Your task to perform on an android device: install app "TextNow: Call + Text Unlimited" Image 0: 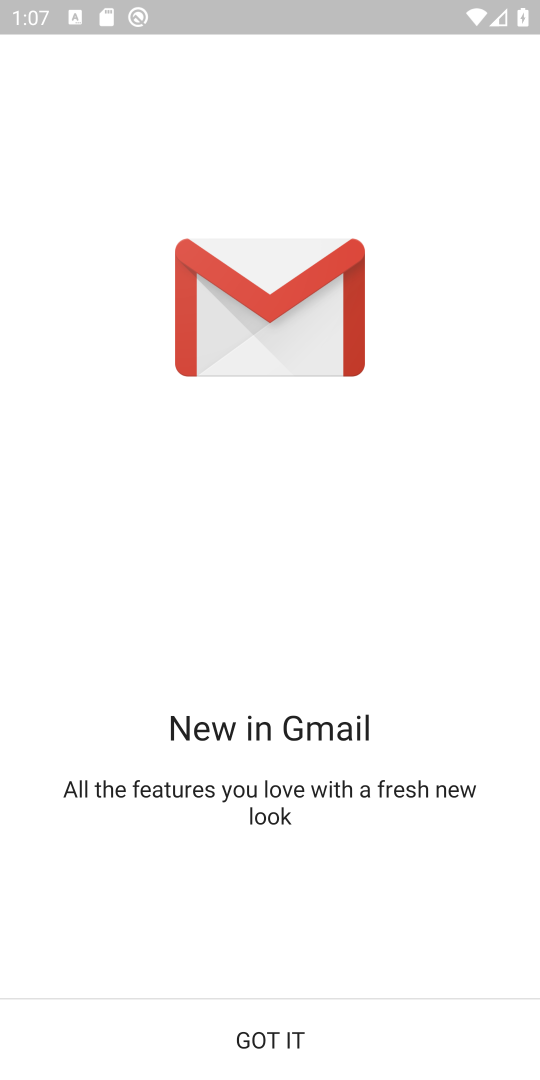
Step 0: press home button
Your task to perform on an android device: install app "TextNow: Call + Text Unlimited" Image 1: 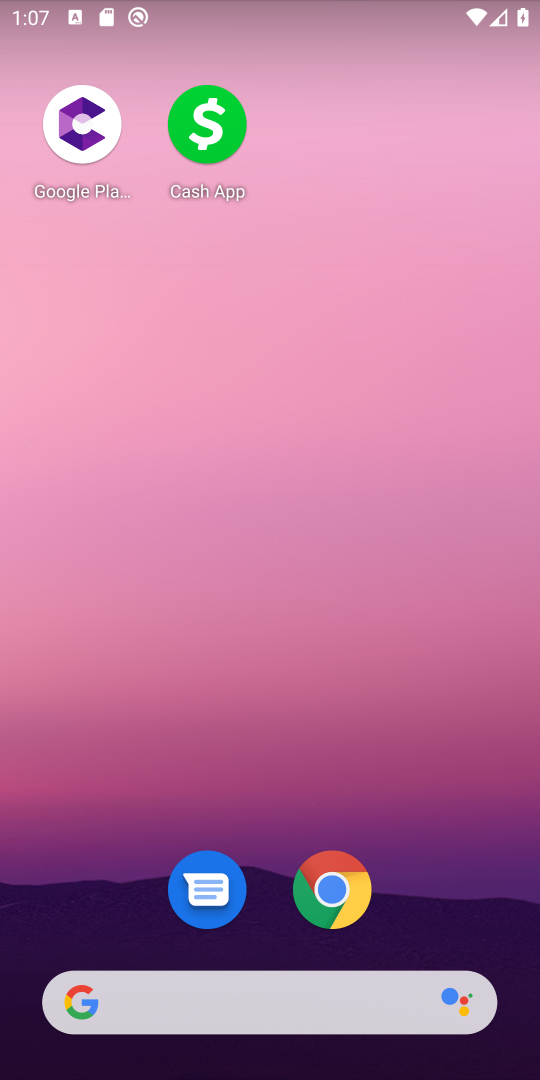
Step 1: drag from (262, 754) to (300, 239)
Your task to perform on an android device: install app "TextNow: Call + Text Unlimited" Image 2: 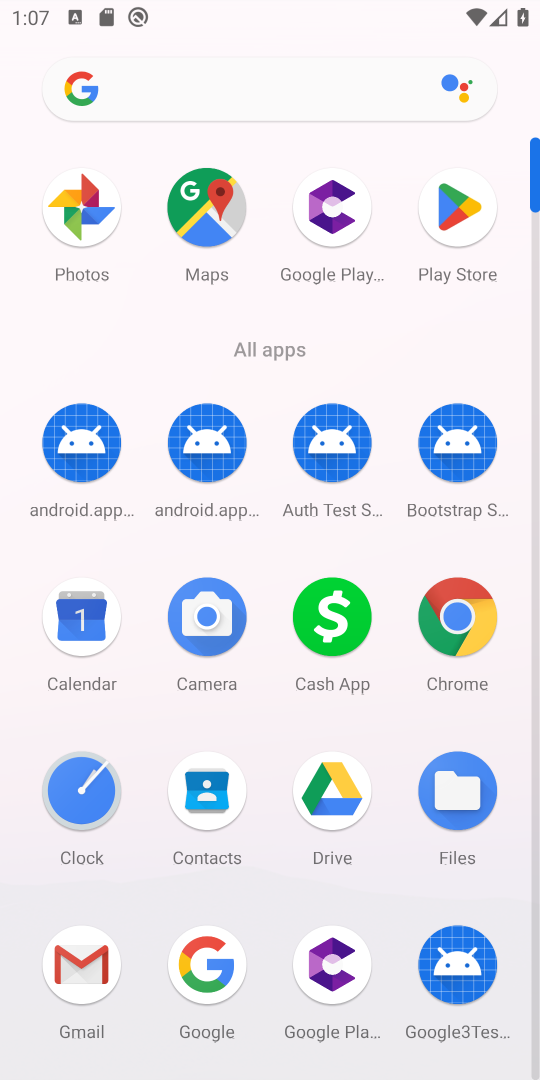
Step 2: click (452, 223)
Your task to perform on an android device: install app "TextNow: Call + Text Unlimited" Image 3: 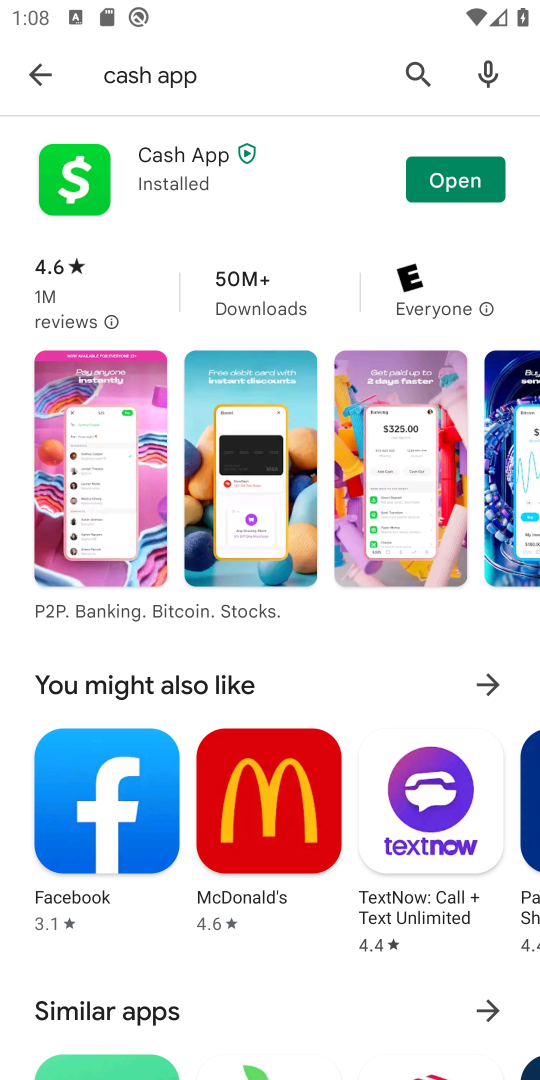
Step 3: click (417, 75)
Your task to perform on an android device: install app "TextNow: Call + Text Unlimited" Image 4: 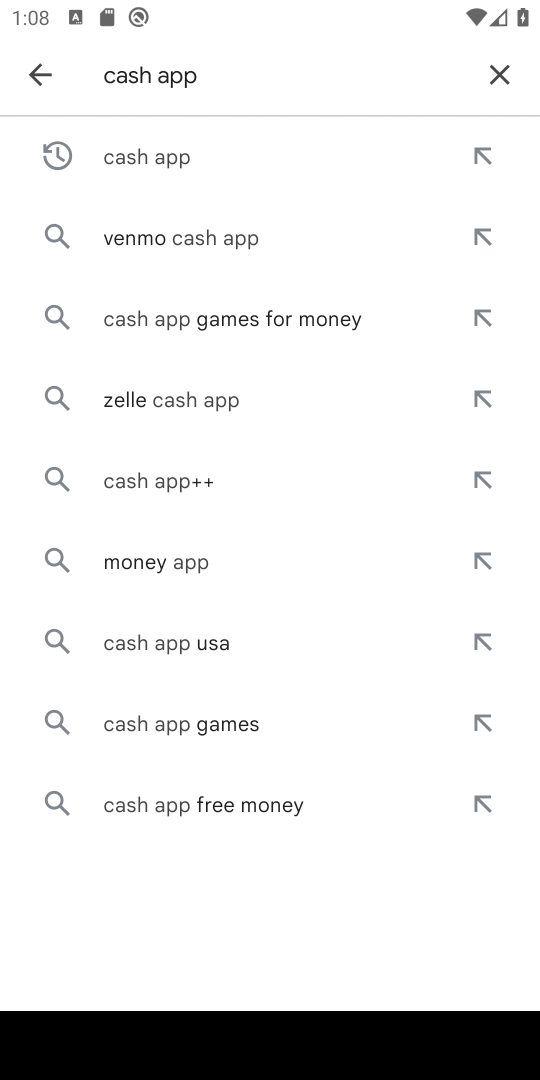
Step 4: click (507, 71)
Your task to perform on an android device: install app "TextNow: Call + Text Unlimited" Image 5: 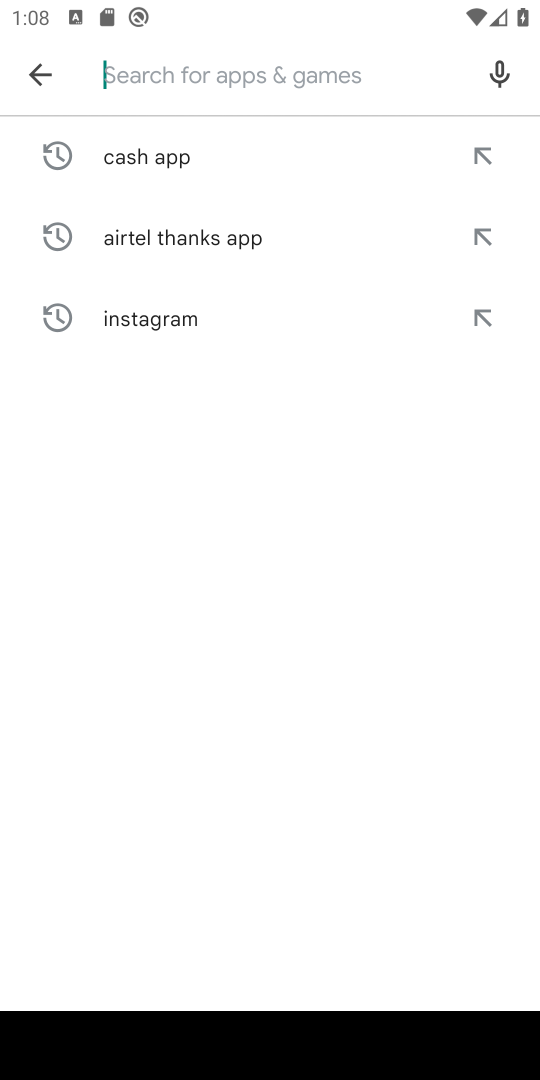
Step 5: type "TextNow: Call + Text Unlimited"
Your task to perform on an android device: install app "TextNow: Call + Text Unlimited" Image 6: 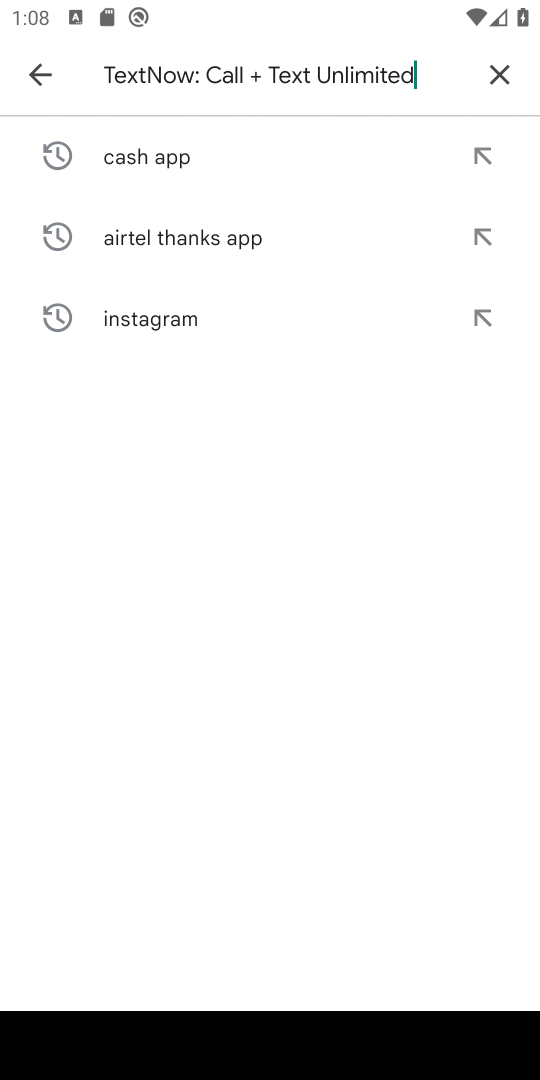
Step 6: type ""
Your task to perform on an android device: install app "TextNow: Call + Text Unlimited" Image 7: 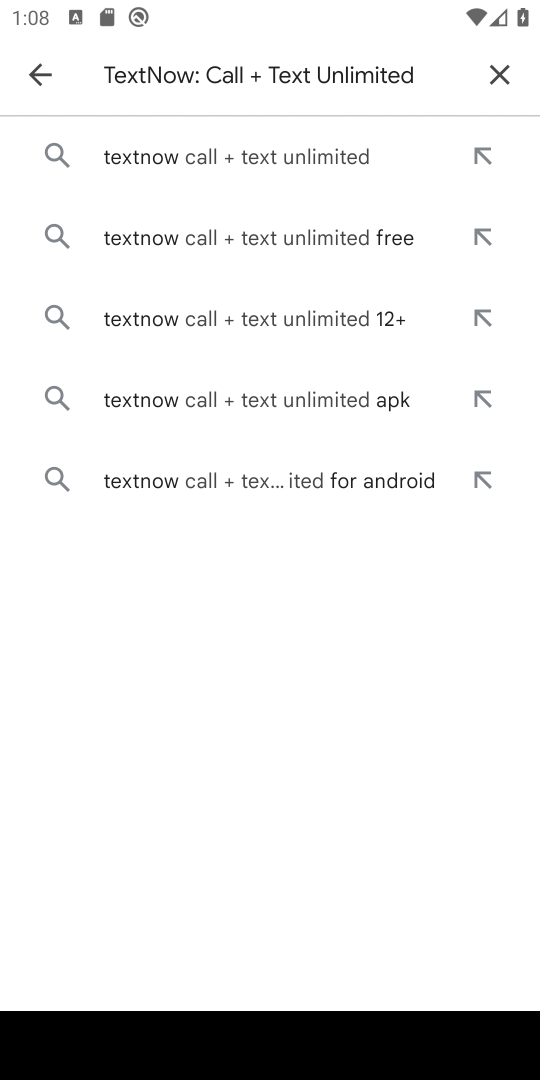
Step 7: click (303, 153)
Your task to perform on an android device: install app "TextNow: Call + Text Unlimited" Image 8: 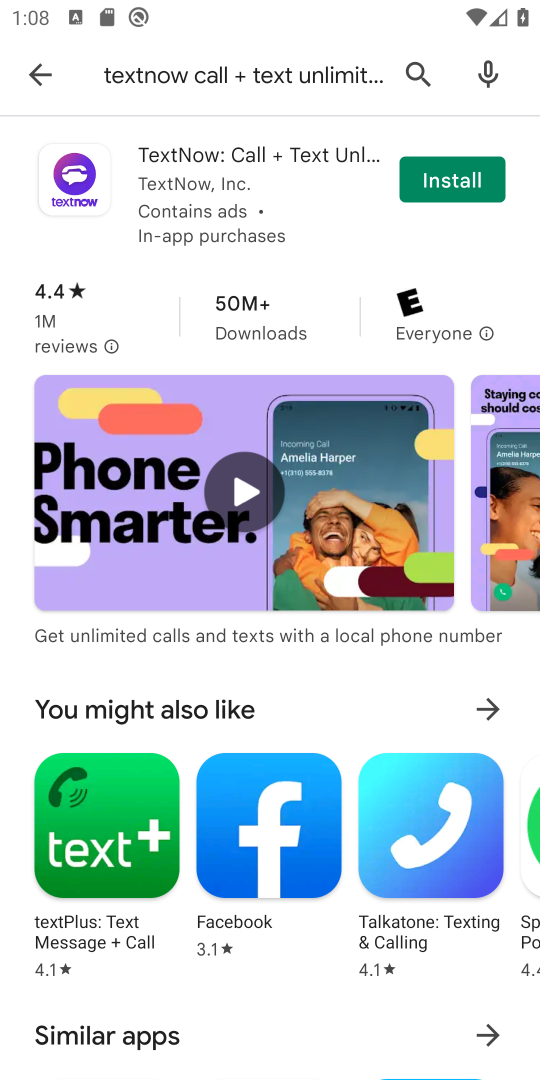
Step 8: click (442, 170)
Your task to perform on an android device: install app "TextNow: Call + Text Unlimited" Image 9: 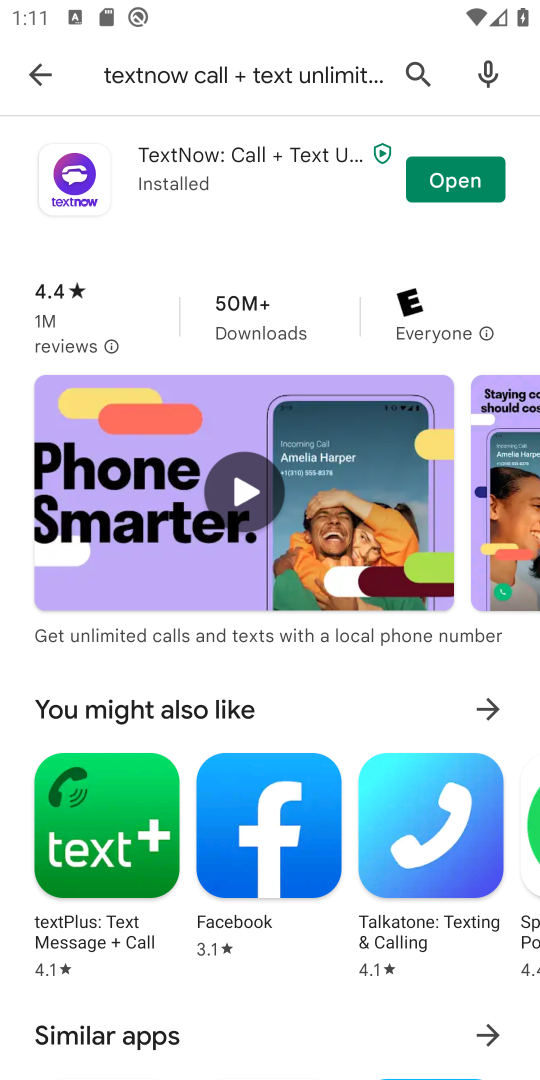
Step 9: task complete